Your task to perform on an android device: turn on priority inbox in the gmail app Image 0: 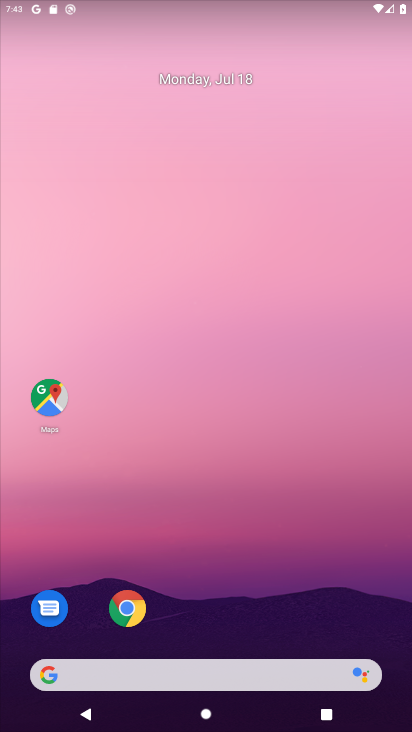
Step 0: drag from (193, 645) to (180, 55)
Your task to perform on an android device: turn on priority inbox in the gmail app Image 1: 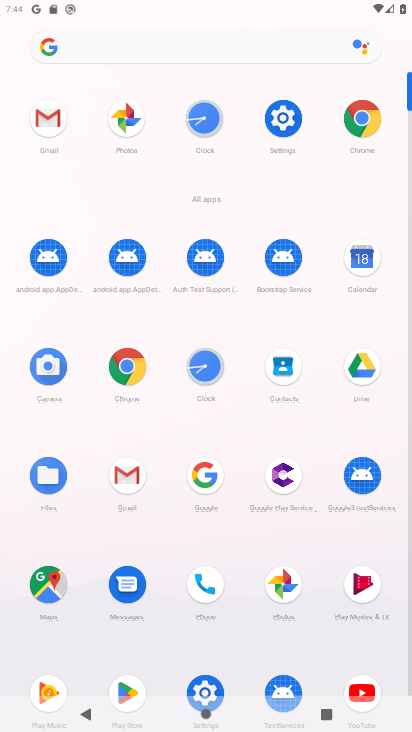
Step 1: click (134, 475)
Your task to perform on an android device: turn on priority inbox in the gmail app Image 2: 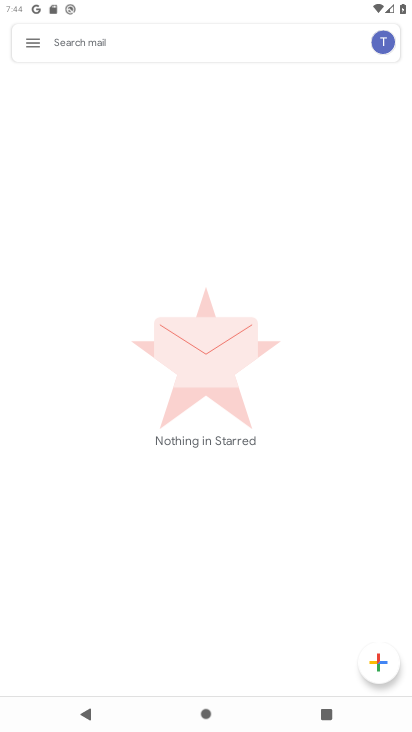
Step 2: click (27, 45)
Your task to perform on an android device: turn on priority inbox in the gmail app Image 3: 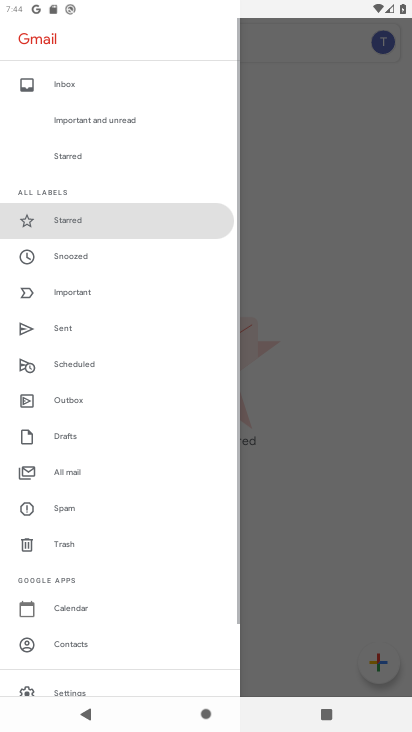
Step 3: drag from (137, 567) to (170, 106)
Your task to perform on an android device: turn on priority inbox in the gmail app Image 4: 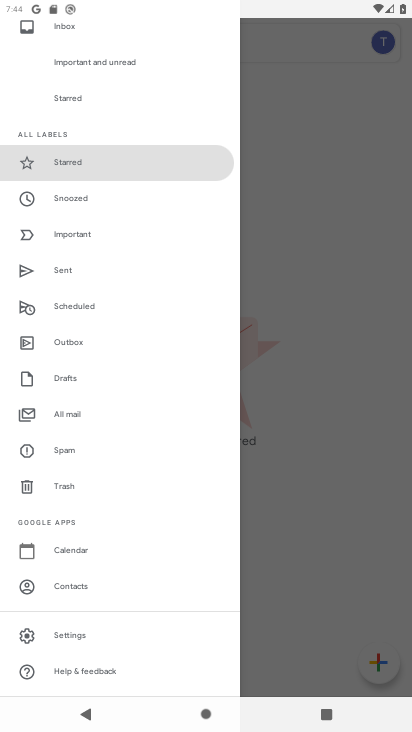
Step 4: click (66, 638)
Your task to perform on an android device: turn on priority inbox in the gmail app Image 5: 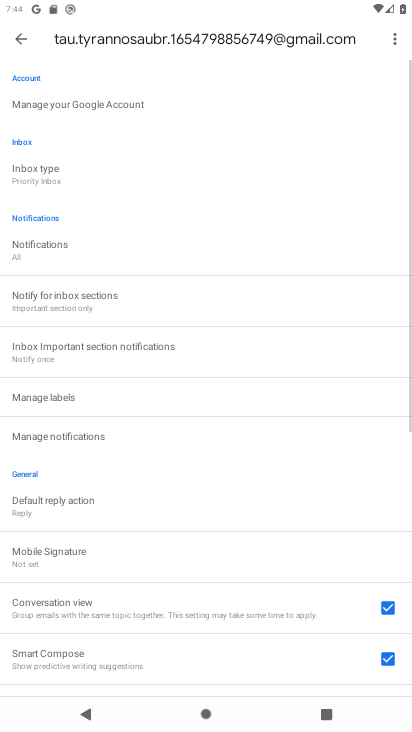
Step 5: click (55, 174)
Your task to perform on an android device: turn on priority inbox in the gmail app Image 6: 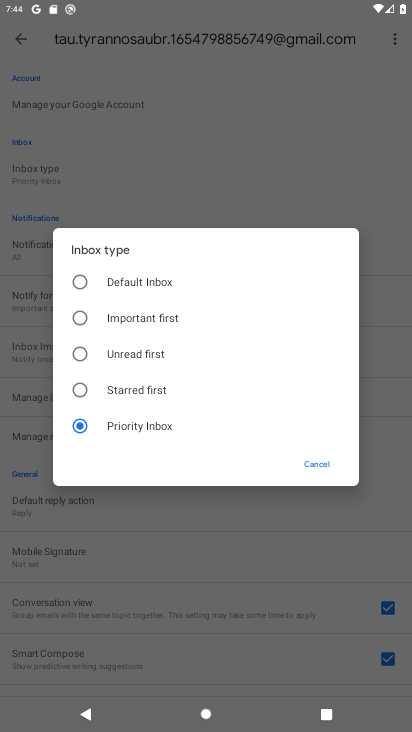
Step 6: click (141, 421)
Your task to perform on an android device: turn on priority inbox in the gmail app Image 7: 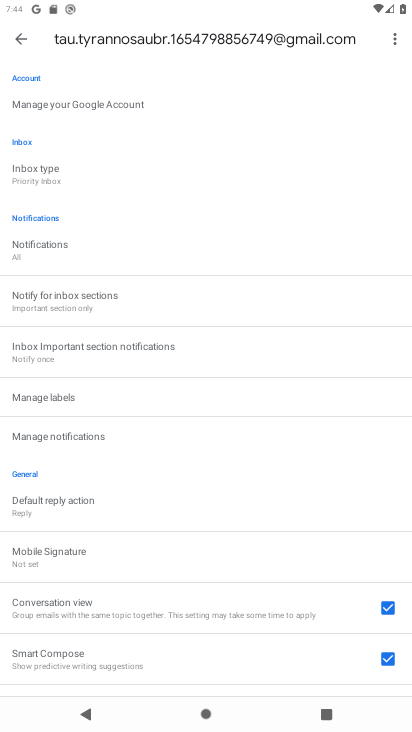
Step 7: task complete